Your task to perform on an android device: snooze an email in the gmail app Image 0: 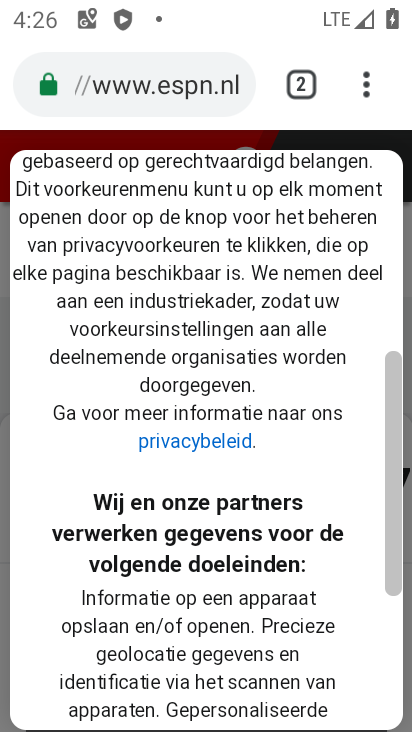
Step 0: press home button
Your task to perform on an android device: snooze an email in the gmail app Image 1: 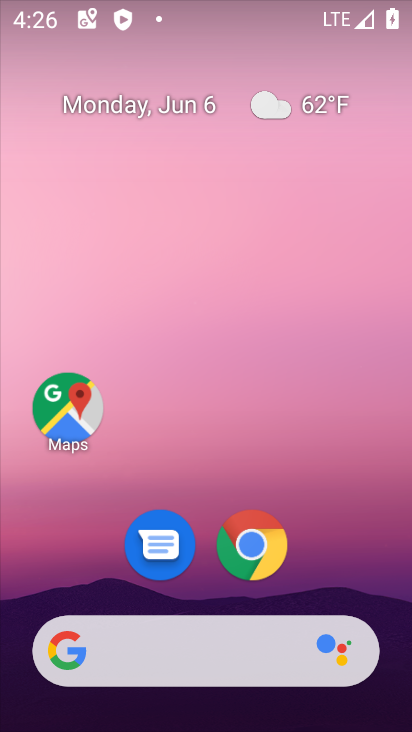
Step 1: drag from (267, 720) to (276, 0)
Your task to perform on an android device: snooze an email in the gmail app Image 2: 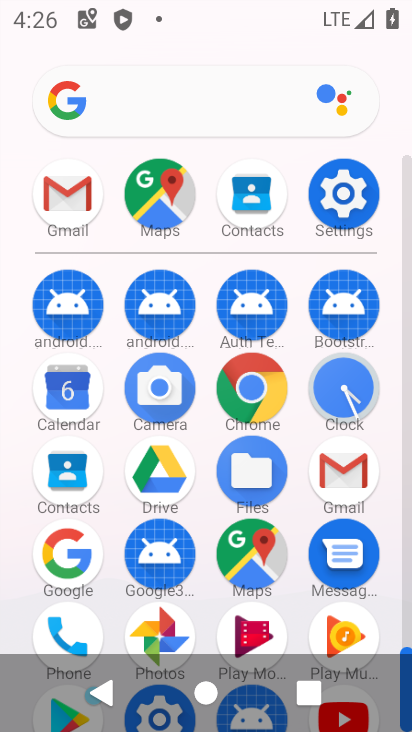
Step 2: click (331, 473)
Your task to perform on an android device: snooze an email in the gmail app Image 3: 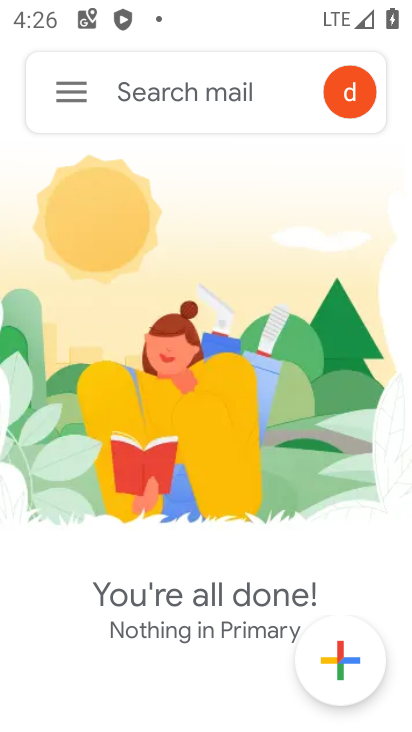
Step 3: click (72, 92)
Your task to perform on an android device: snooze an email in the gmail app Image 4: 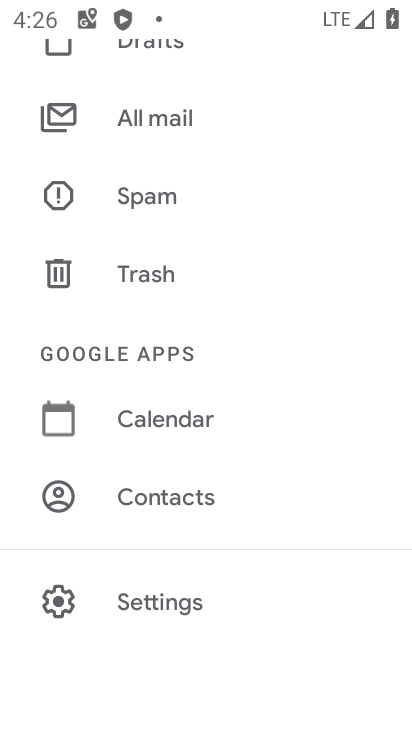
Step 4: drag from (194, 158) to (187, 530)
Your task to perform on an android device: snooze an email in the gmail app Image 5: 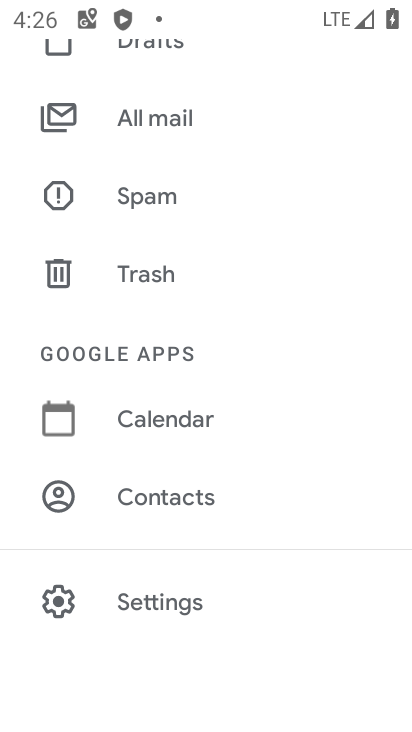
Step 5: drag from (205, 117) to (207, 596)
Your task to perform on an android device: snooze an email in the gmail app Image 6: 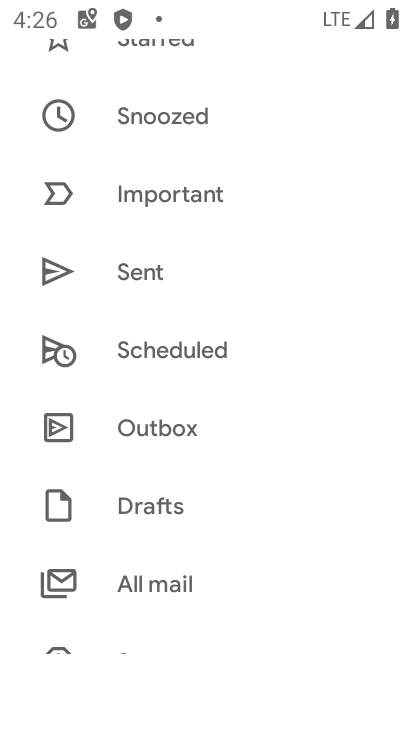
Step 6: drag from (223, 92) to (219, 613)
Your task to perform on an android device: snooze an email in the gmail app Image 7: 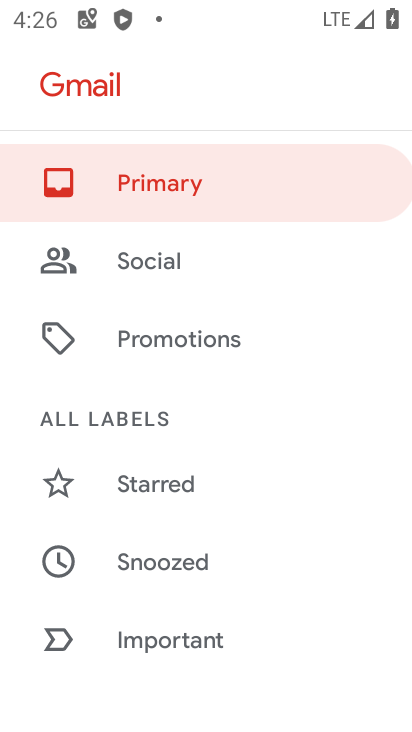
Step 7: click (180, 186)
Your task to perform on an android device: snooze an email in the gmail app Image 8: 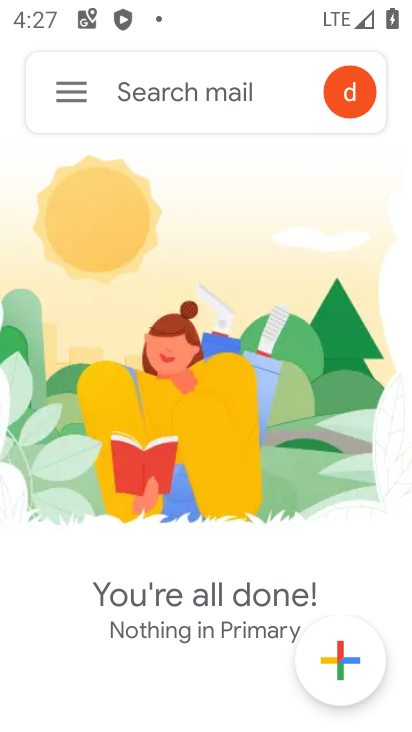
Step 8: task complete